Your task to perform on an android device: turn on javascript in the chrome app Image 0: 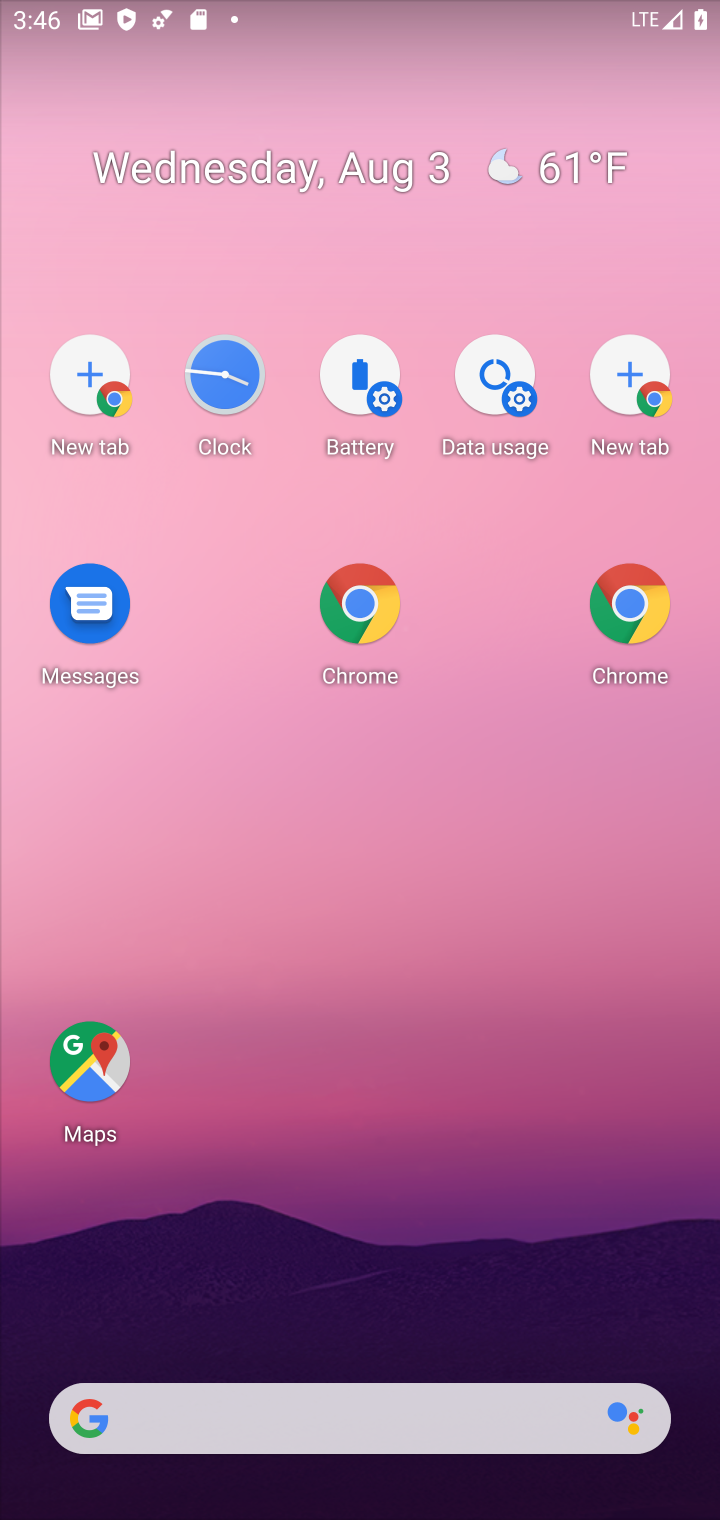
Step 0: drag from (571, 1470) to (431, 773)
Your task to perform on an android device: turn on javascript in the chrome app Image 1: 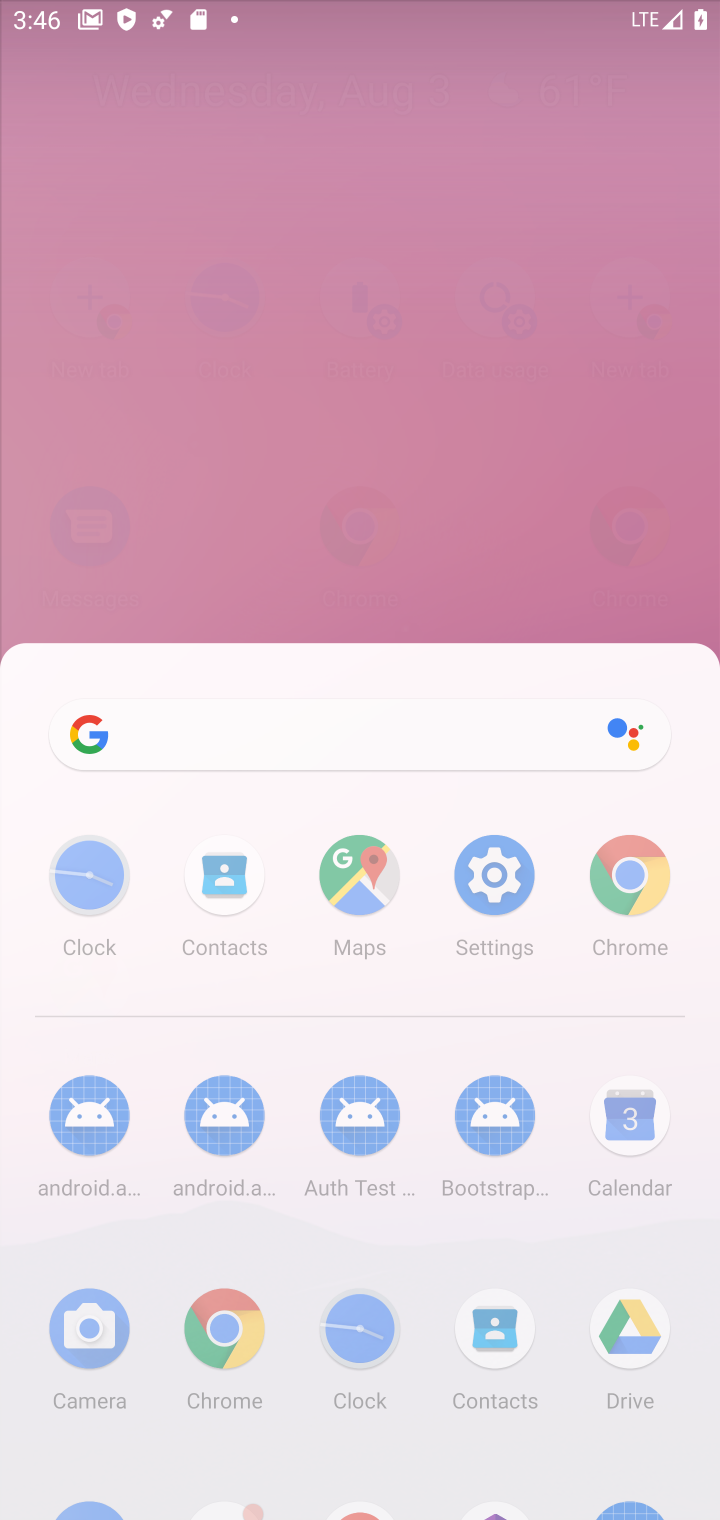
Step 1: drag from (473, 1130) to (497, 436)
Your task to perform on an android device: turn on javascript in the chrome app Image 2: 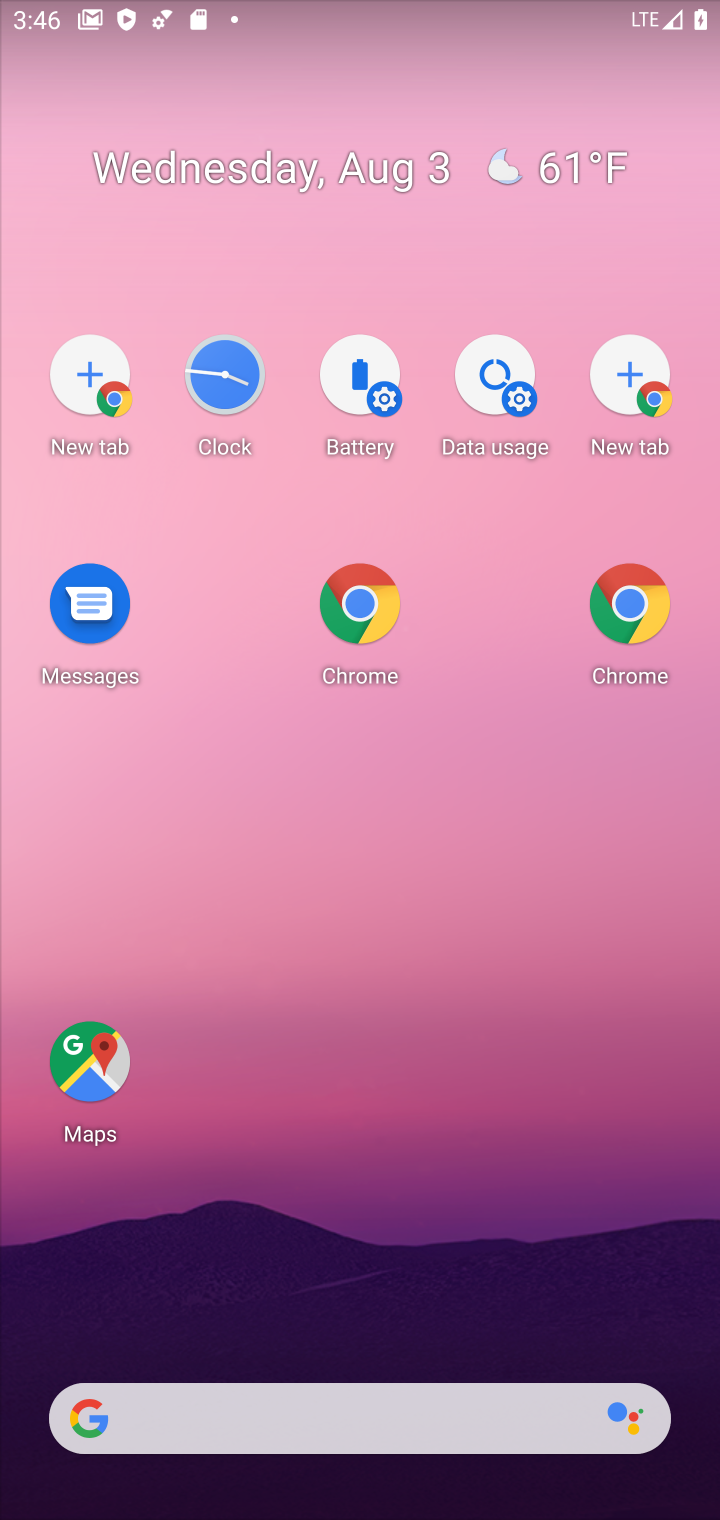
Step 2: drag from (464, 1020) to (445, 252)
Your task to perform on an android device: turn on javascript in the chrome app Image 3: 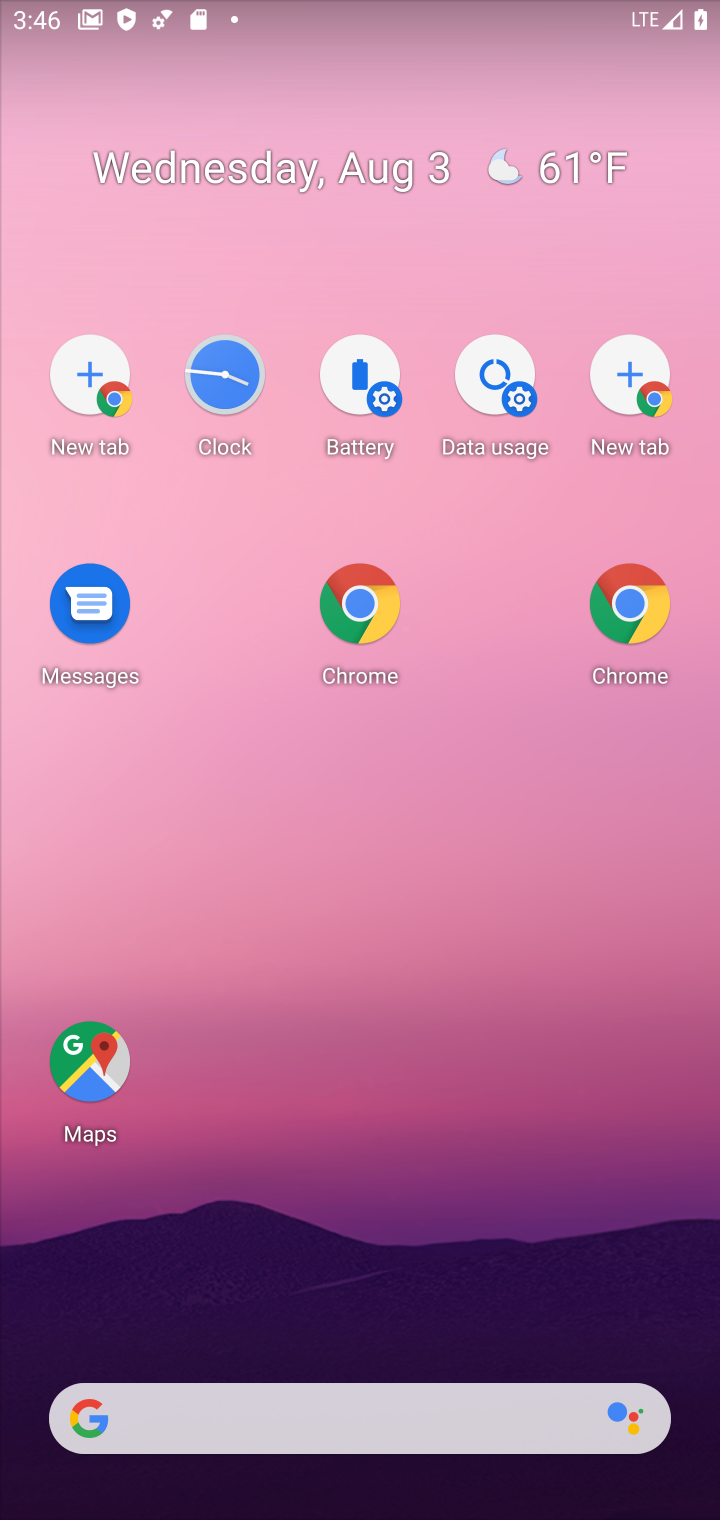
Step 3: drag from (437, 894) to (467, 530)
Your task to perform on an android device: turn on javascript in the chrome app Image 4: 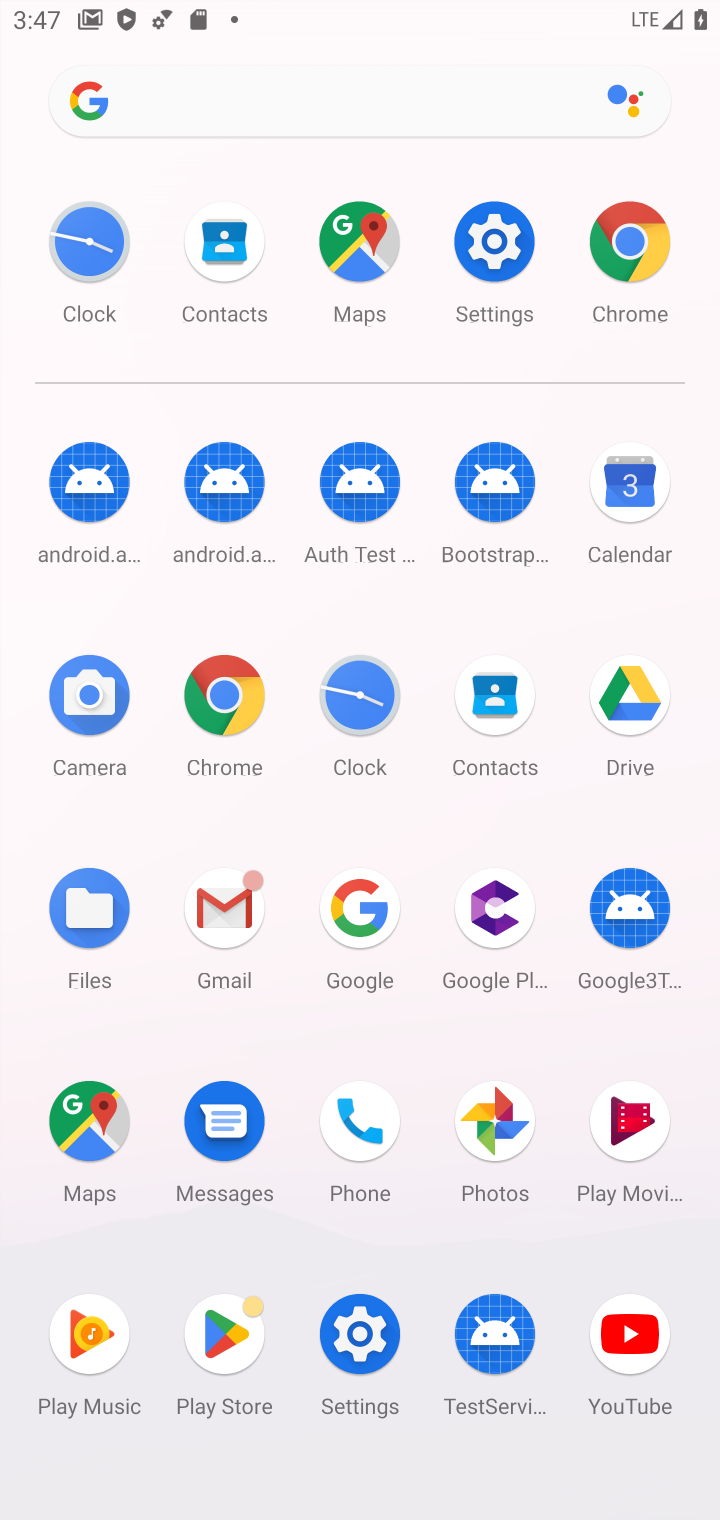
Step 4: click (627, 260)
Your task to perform on an android device: turn on javascript in the chrome app Image 5: 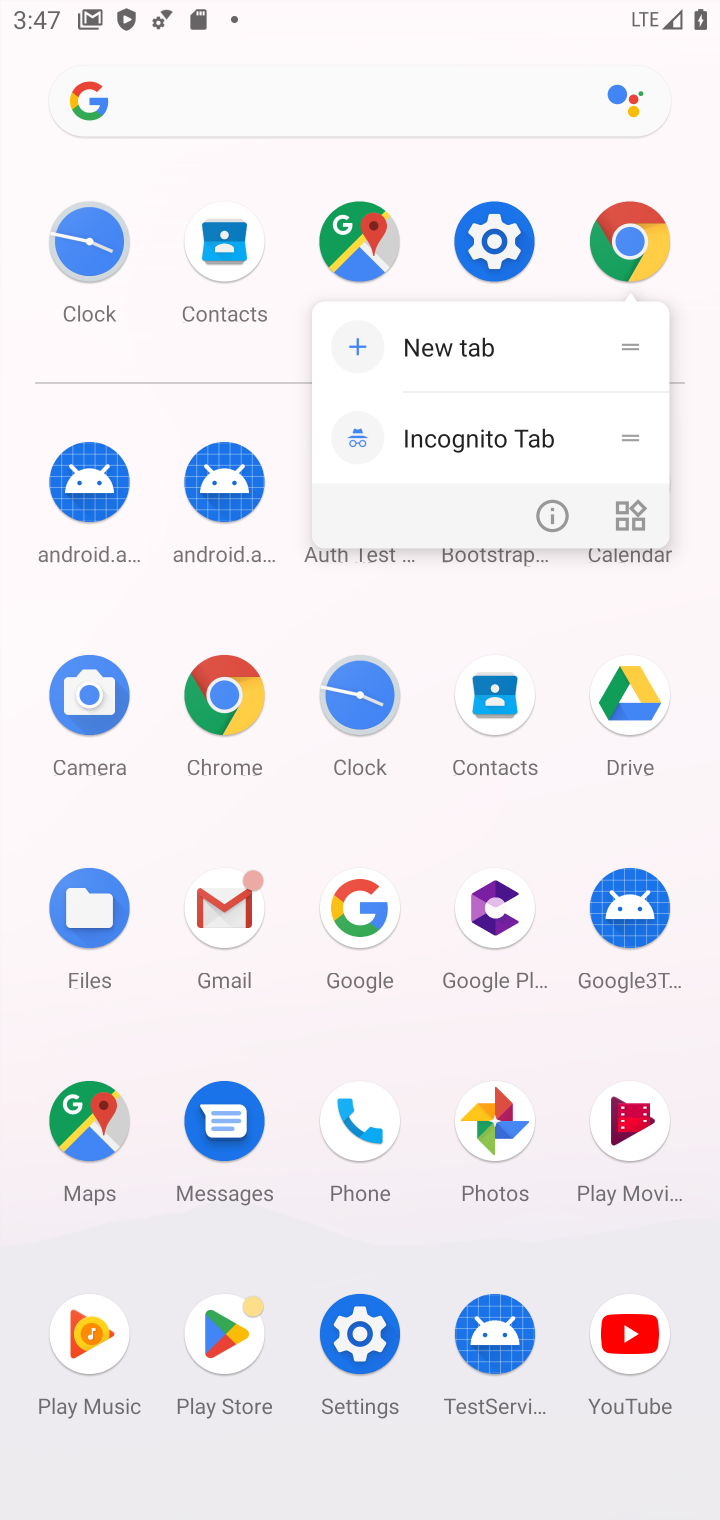
Step 5: click (624, 251)
Your task to perform on an android device: turn on javascript in the chrome app Image 6: 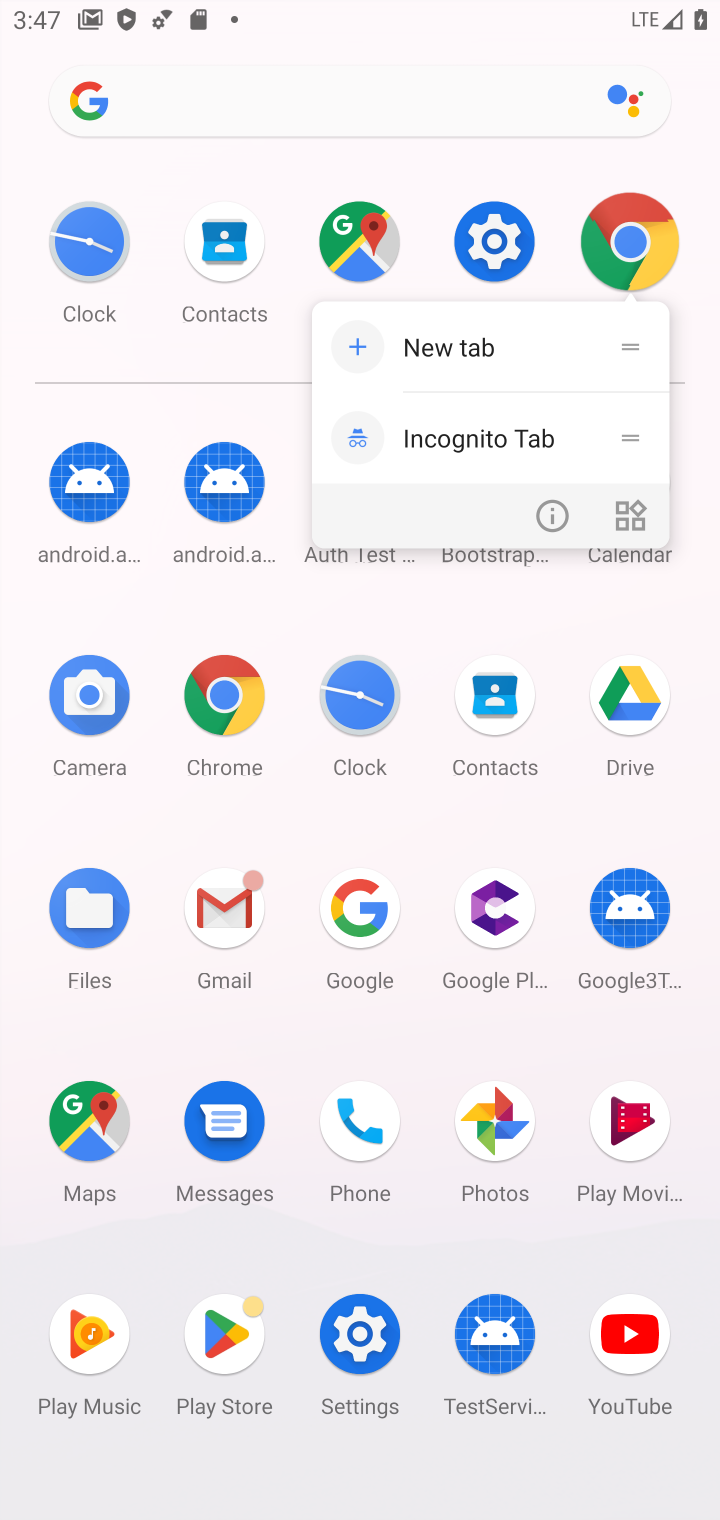
Step 6: click (635, 258)
Your task to perform on an android device: turn on javascript in the chrome app Image 7: 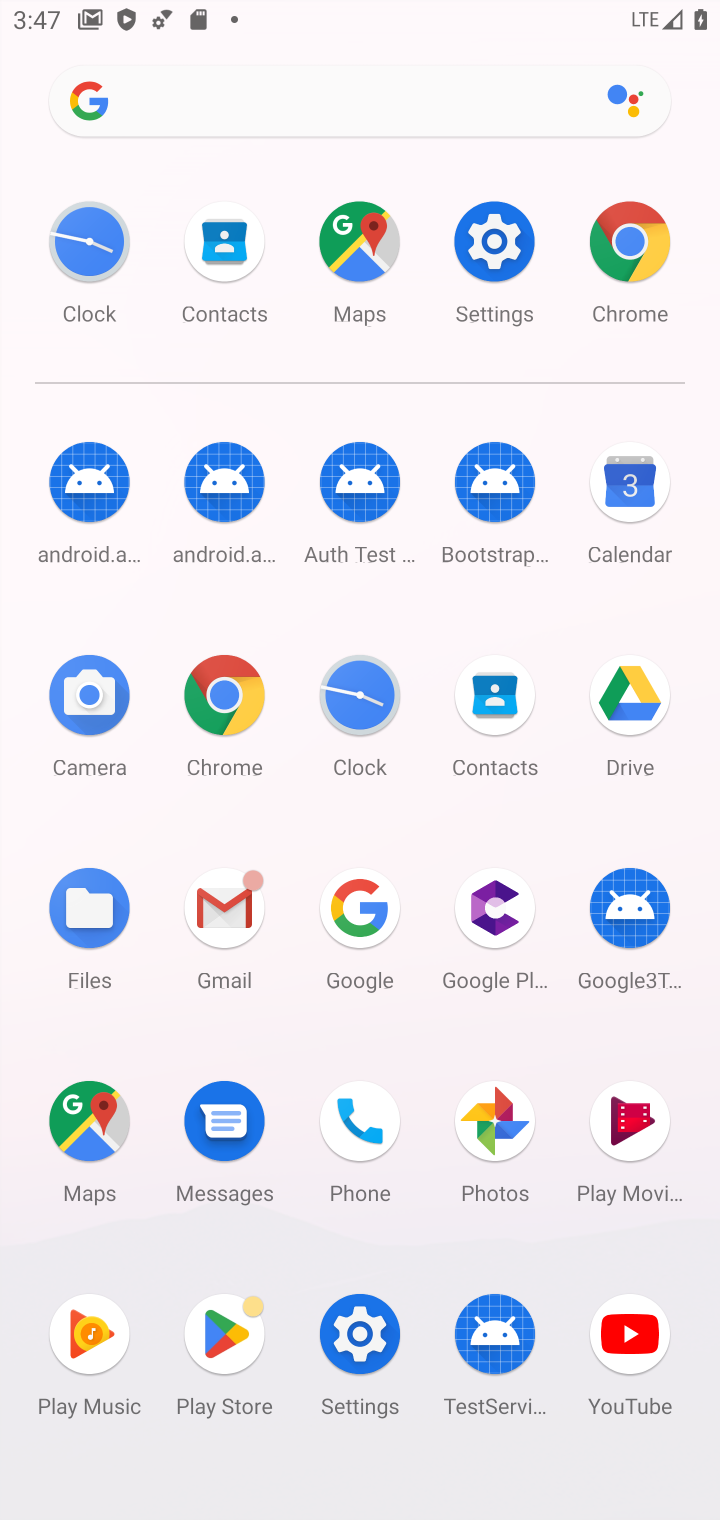
Step 7: click (627, 259)
Your task to perform on an android device: turn on javascript in the chrome app Image 8: 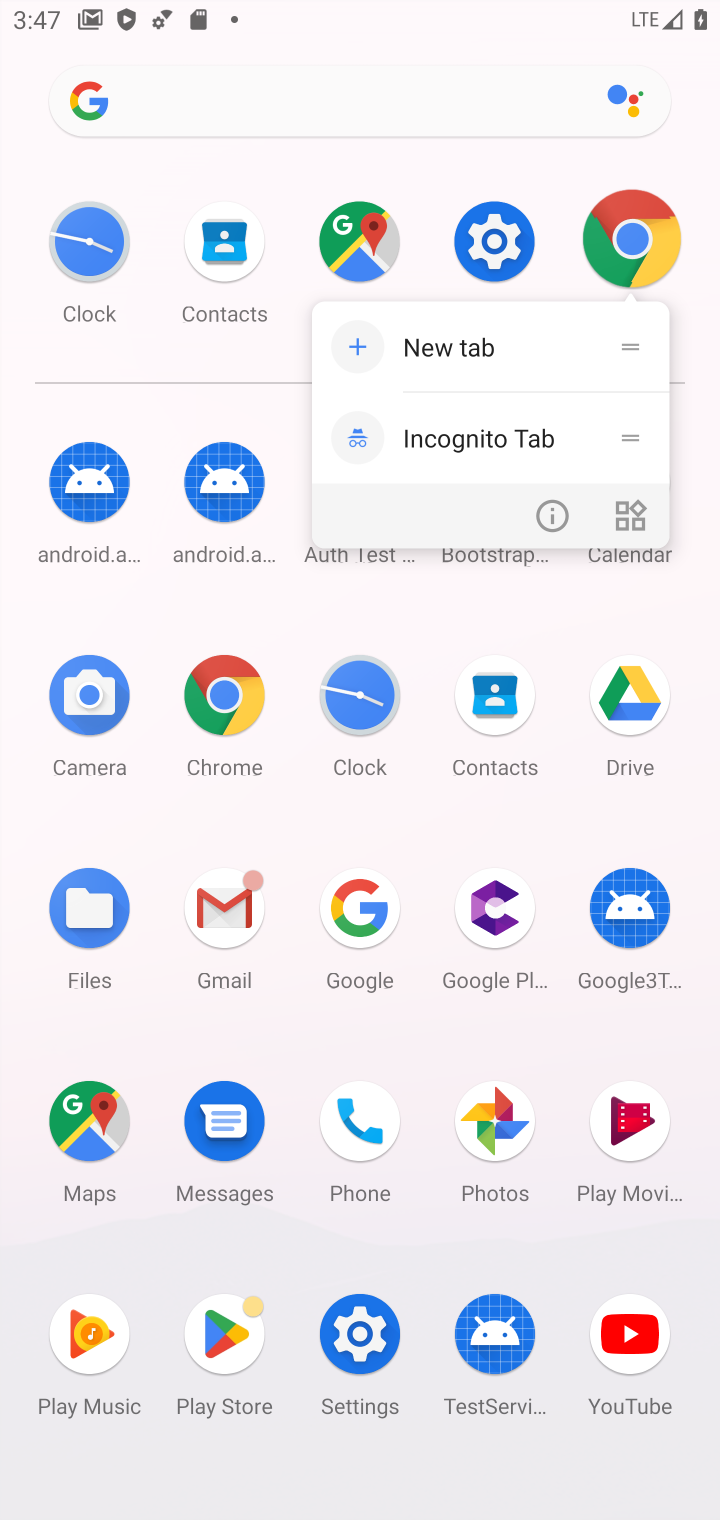
Step 8: click (635, 252)
Your task to perform on an android device: turn on javascript in the chrome app Image 9: 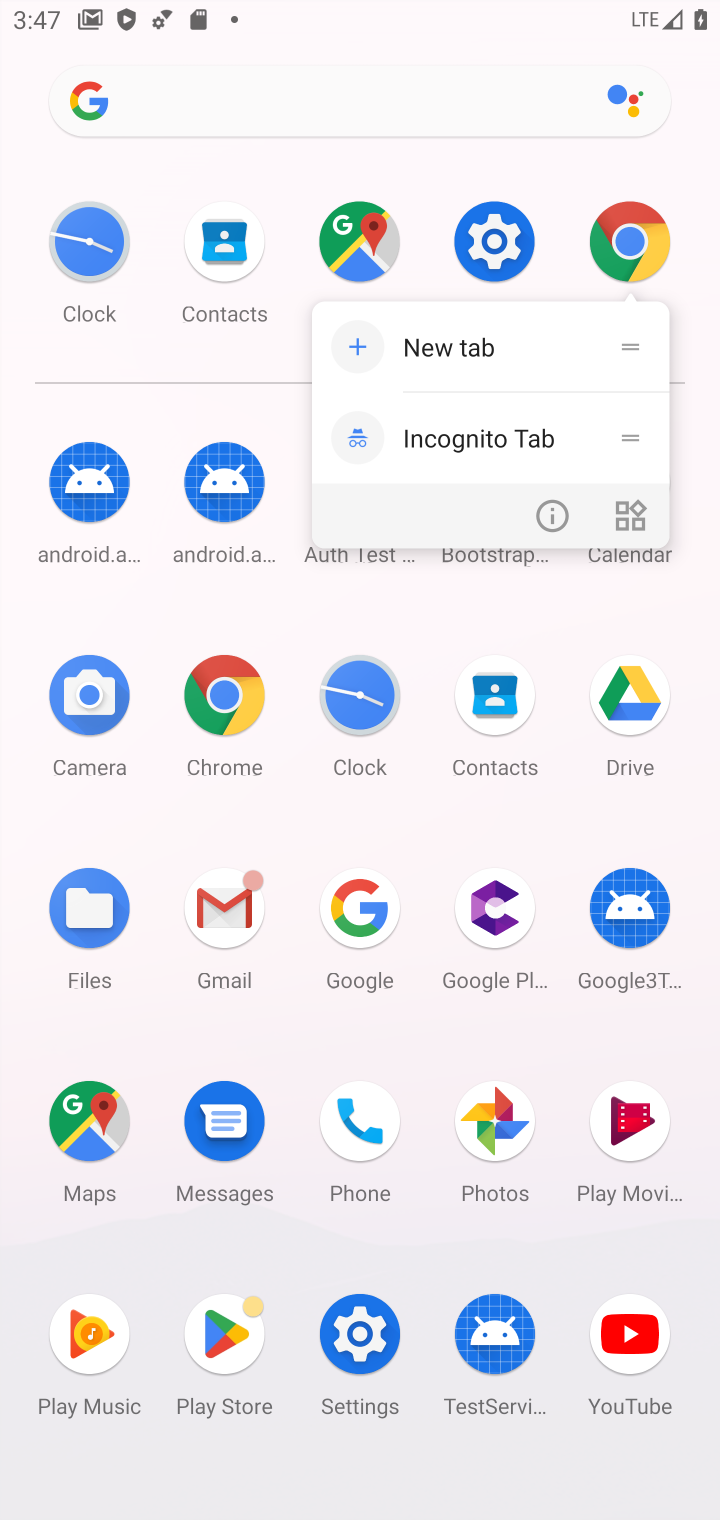
Step 9: click (637, 252)
Your task to perform on an android device: turn on javascript in the chrome app Image 10: 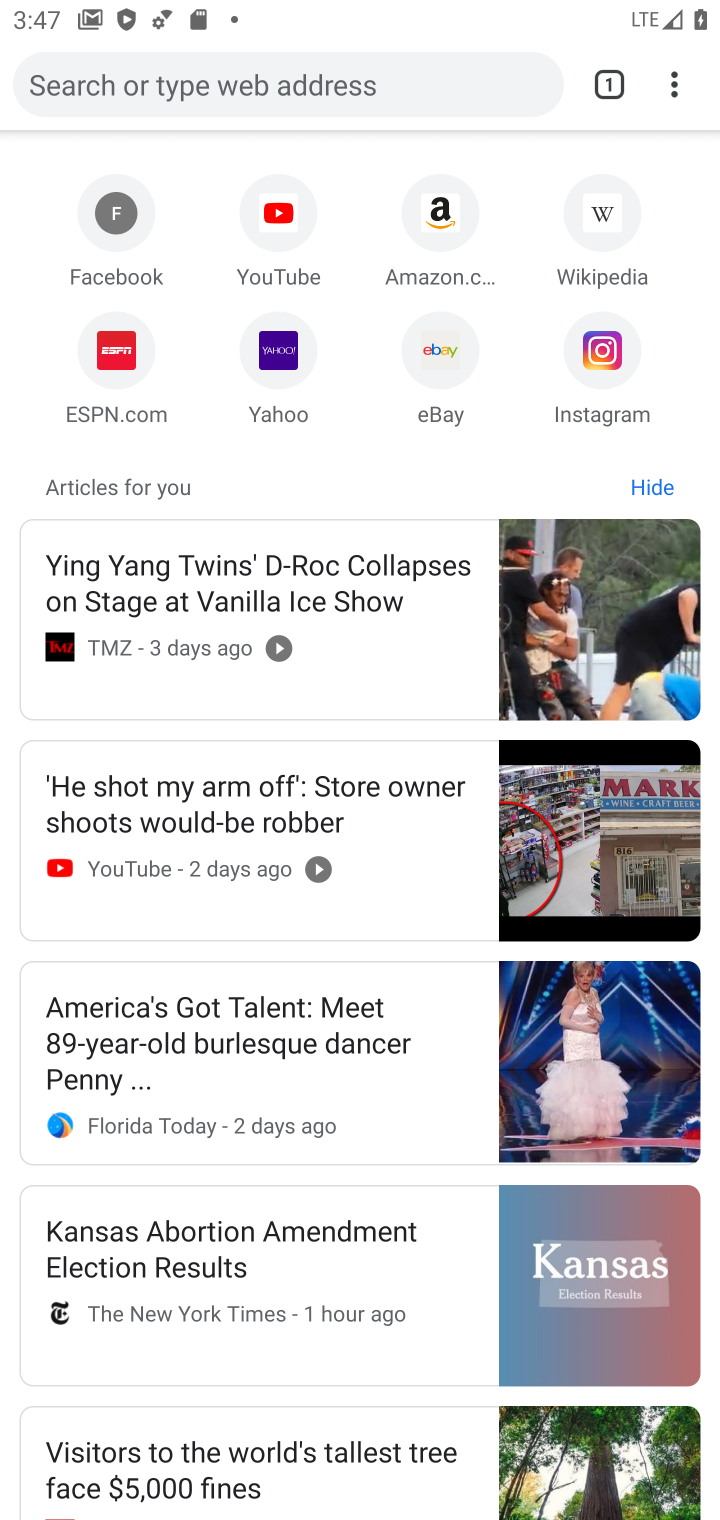
Step 10: drag from (668, 82) to (375, 712)
Your task to perform on an android device: turn on javascript in the chrome app Image 11: 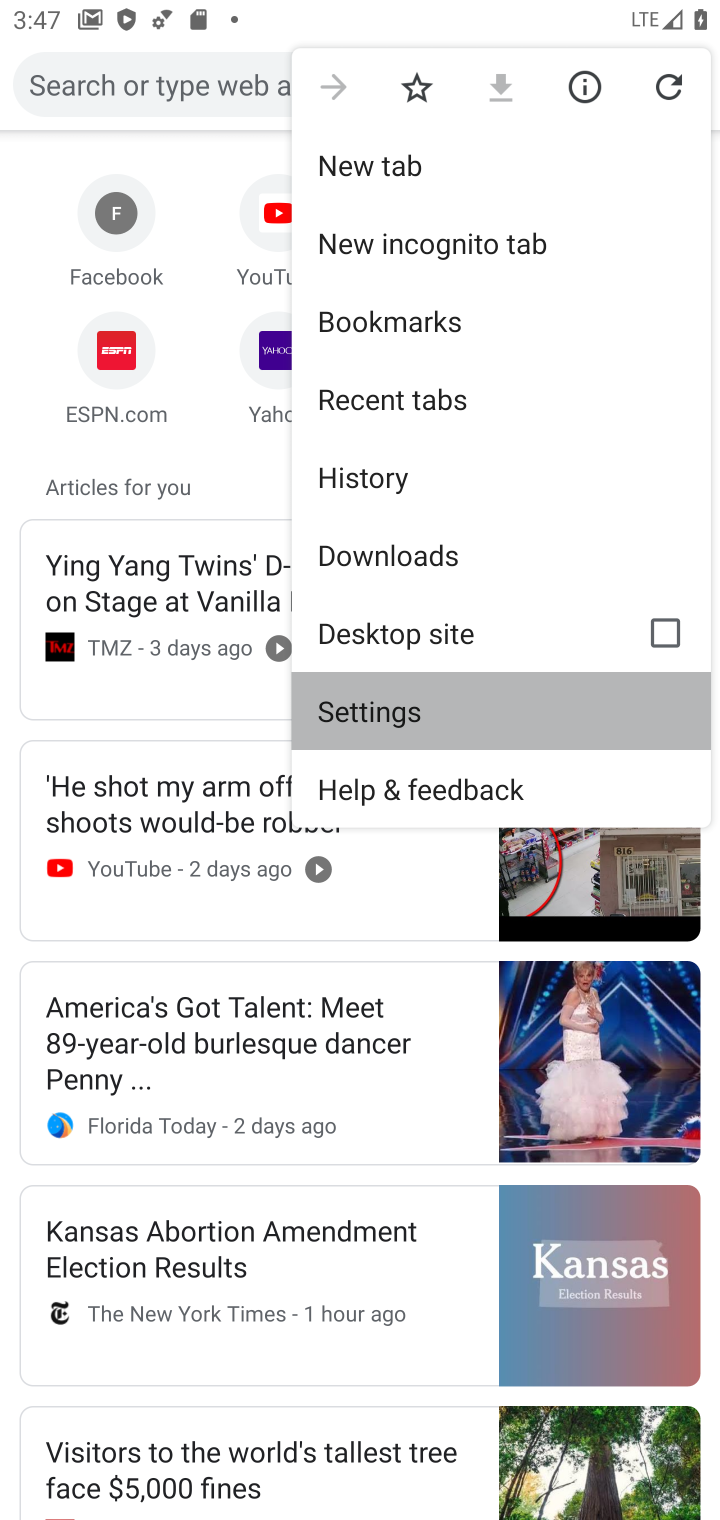
Step 11: click (372, 714)
Your task to perform on an android device: turn on javascript in the chrome app Image 12: 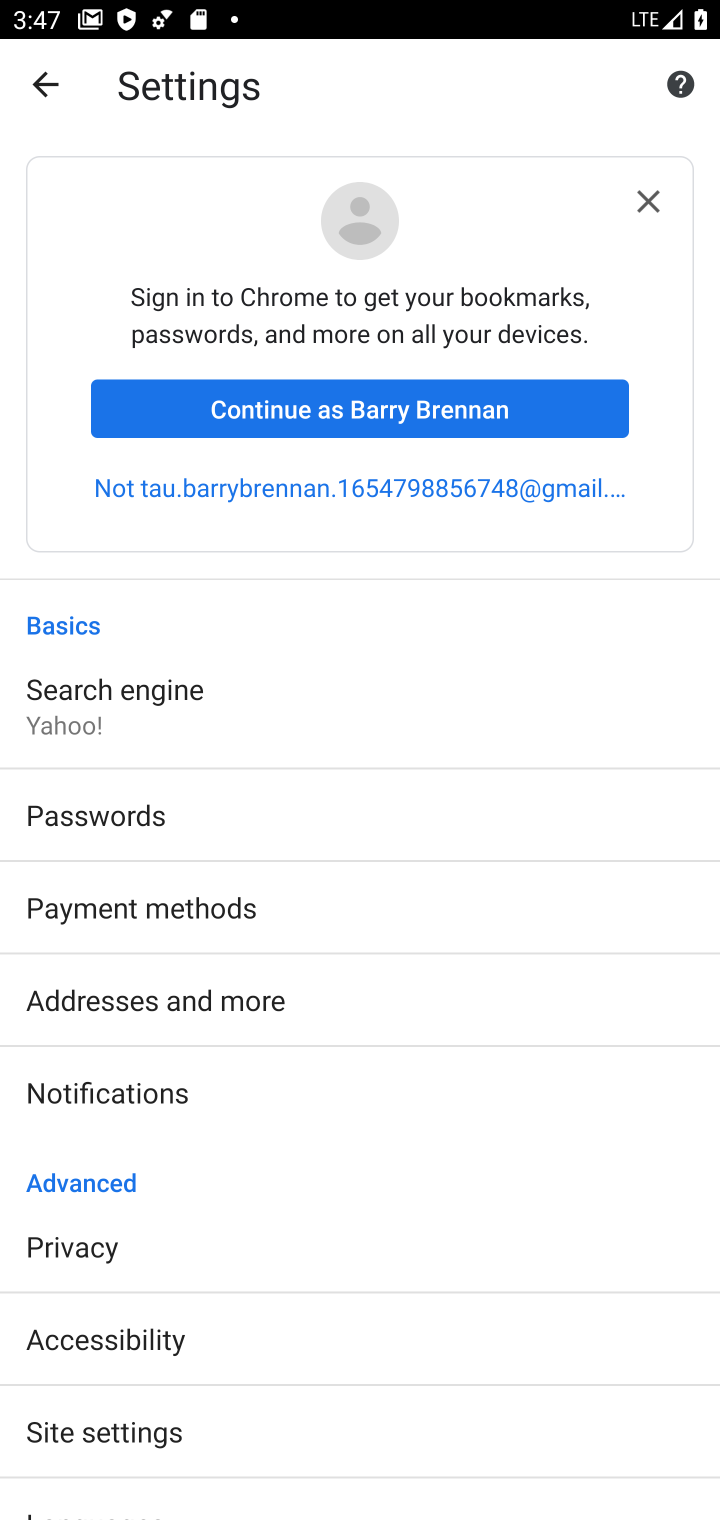
Step 12: drag from (181, 1228) to (299, 664)
Your task to perform on an android device: turn on javascript in the chrome app Image 13: 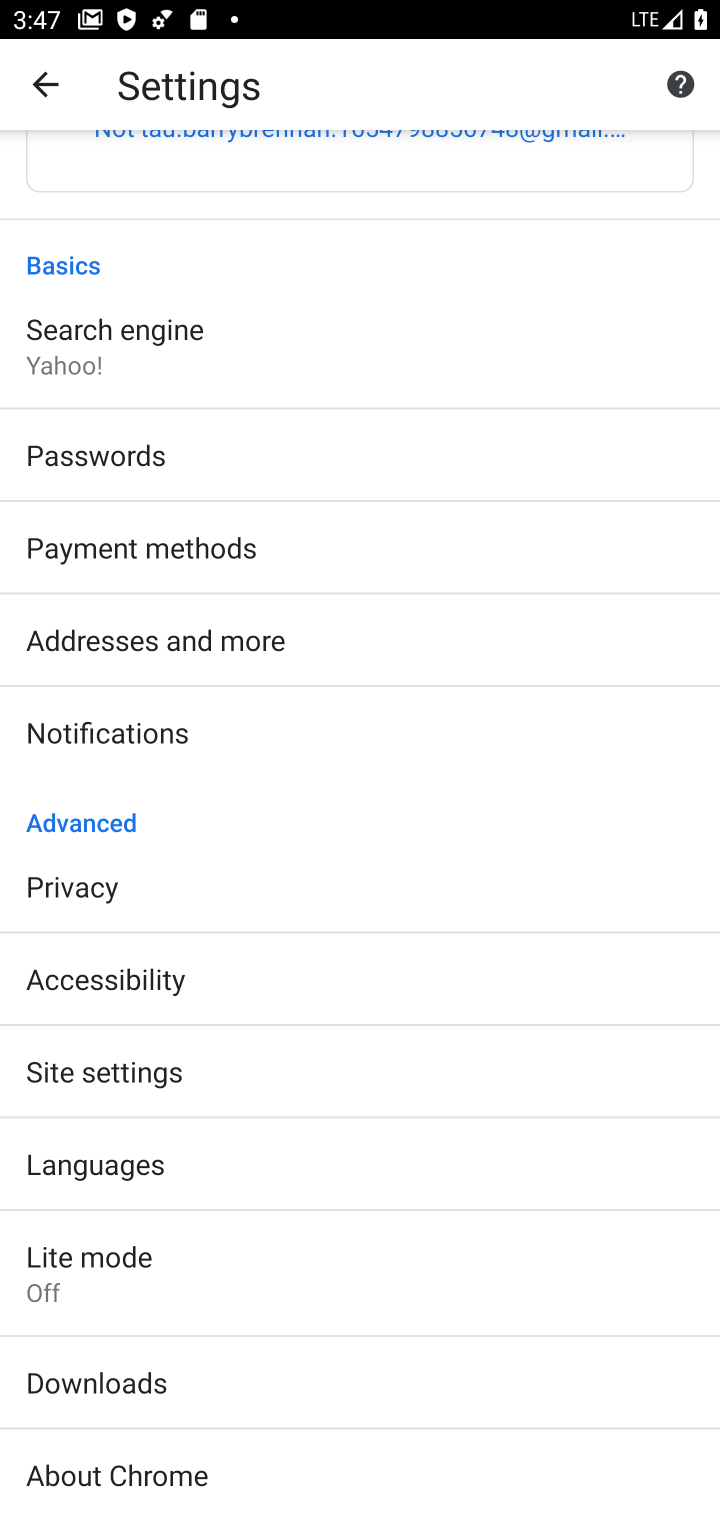
Step 13: click (73, 1039)
Your task to perform on an android device: turn on javascript in the chrome app Image 14: 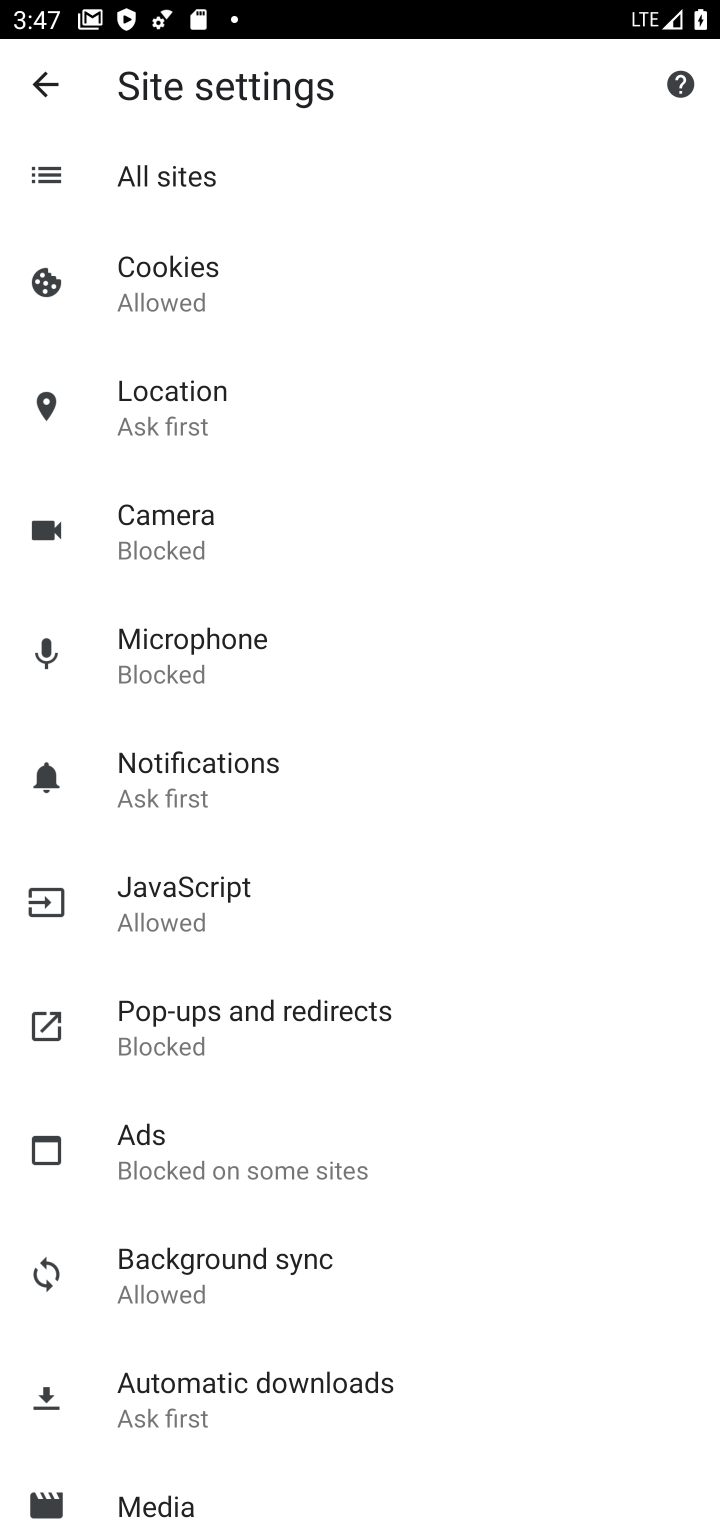
Step 14: click (193, 890)
Your task to perform on an android device: turn on javascript in the chrome app Image 15: 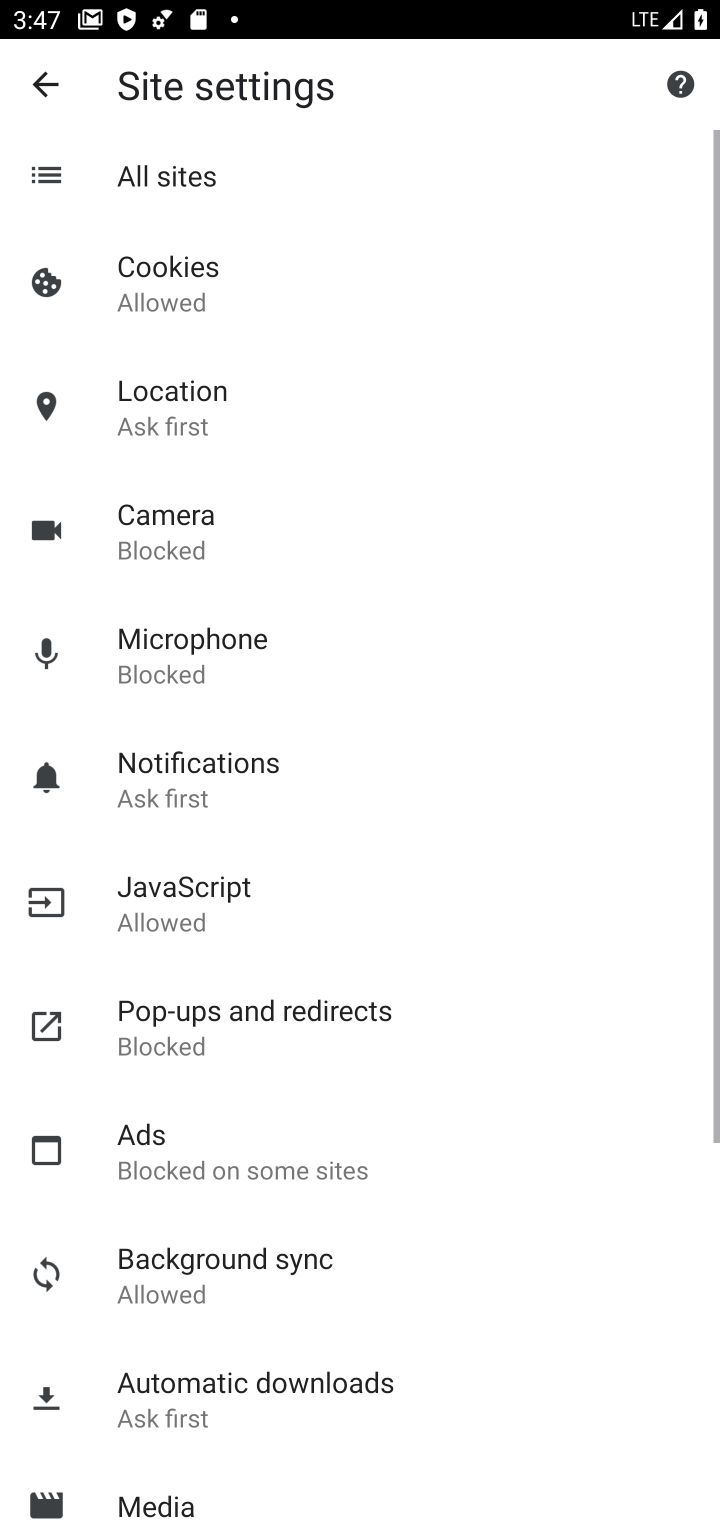
Step 15: click (193, 890)
Your task to perform on an android device: turn on javascript in the chrome app Image 16: 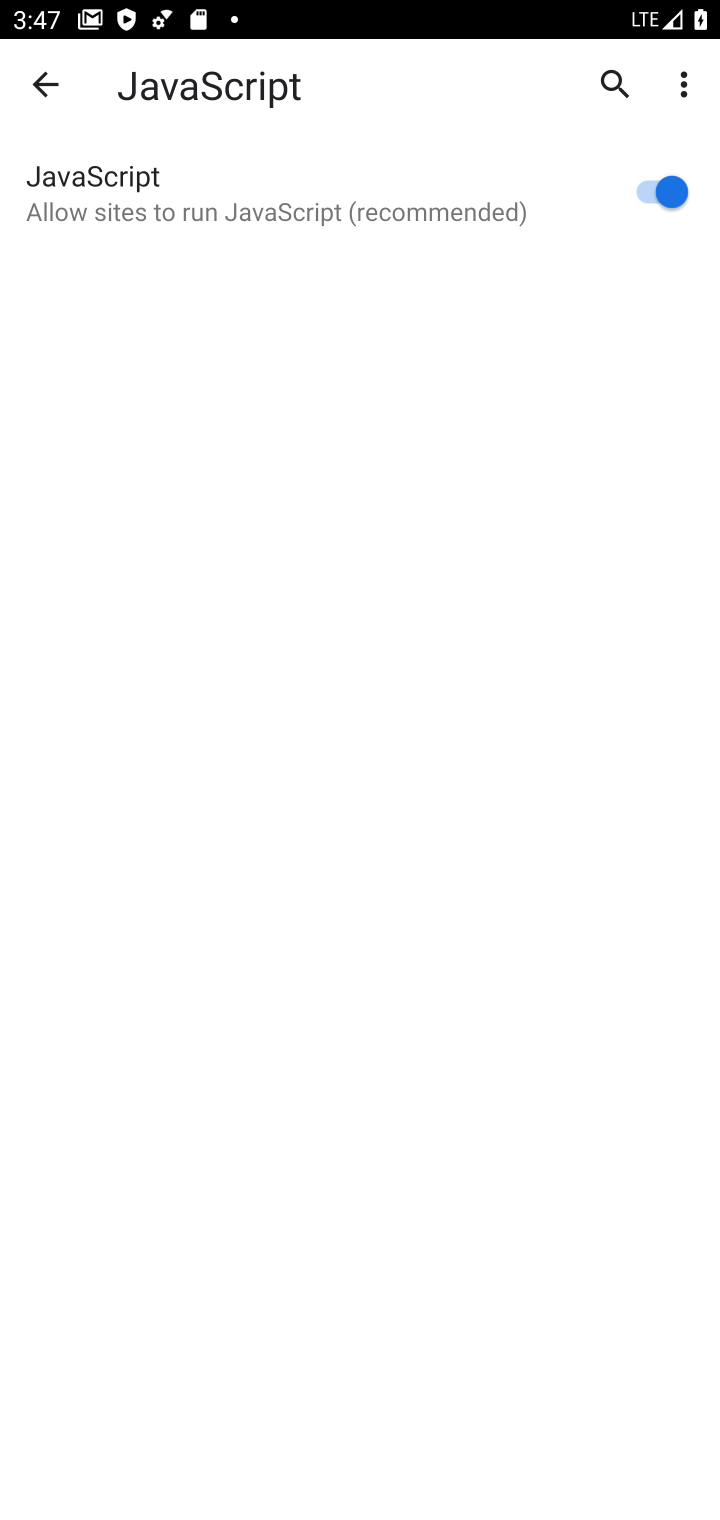
Step 16: task complete